Your task to perform on an android device: turn off data saver in the chrome app Image 0: 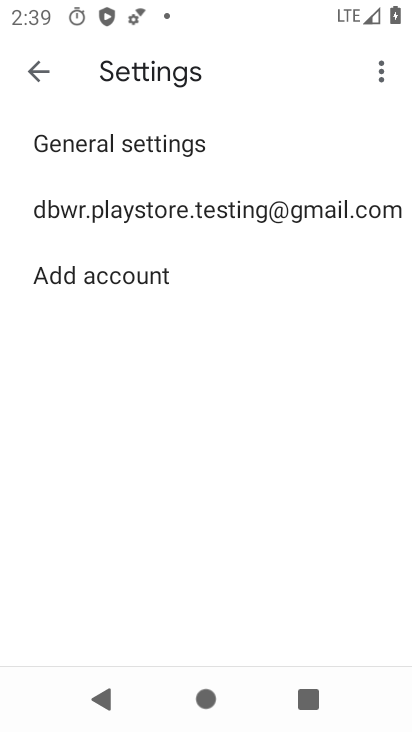
Step 0: press home button
Your task to perform on an android device: turn off data saver in the chrome app Image 1: 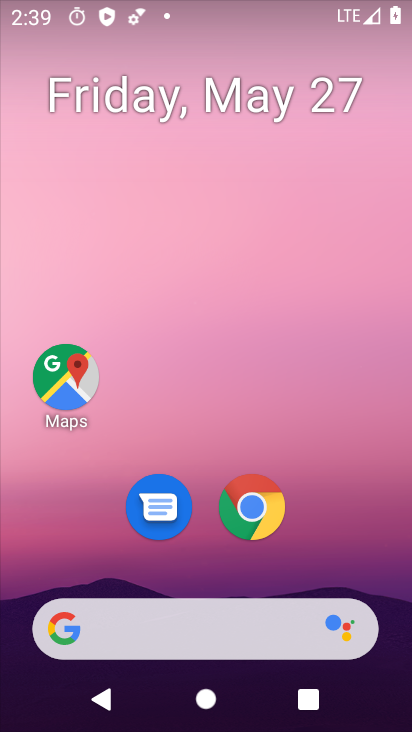
Step 1: click (254, 508)
Your task to perform on an android device: turn off data saver in the chrome app Image 2: 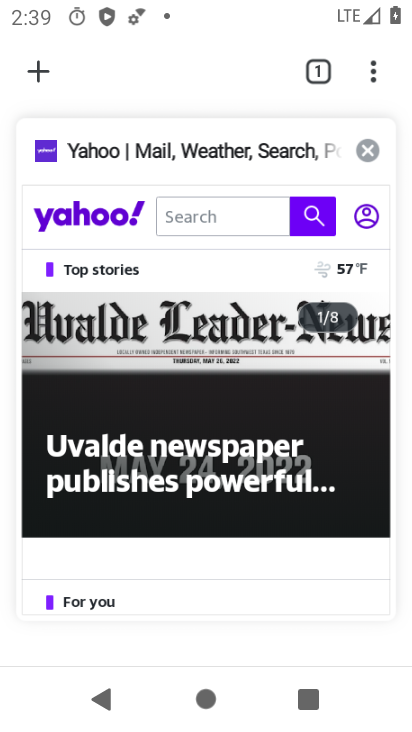
Step 2: click (365, 69)
Your task to perform on an android device: turn off data saver in the chrome app Image 3: 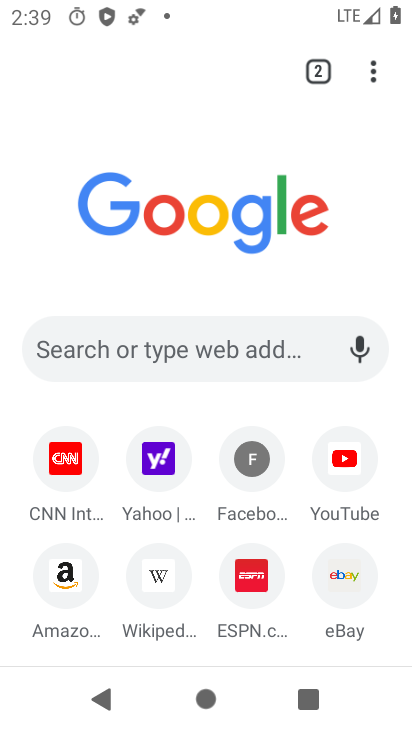
Step 3: click (375, 76)
Your task to perform on an android device: turn off data saver in the chrome app Image 4: 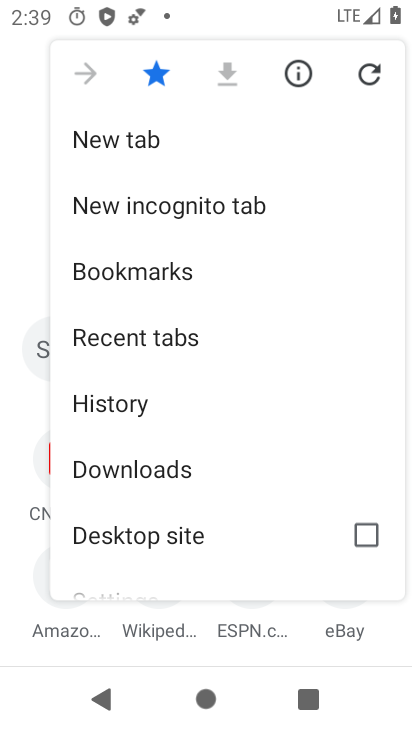
Step 4: drag from (133, 544) to (170, 145)
Your task to perform on an android device: turn off data saver in the chrome app Image 5: 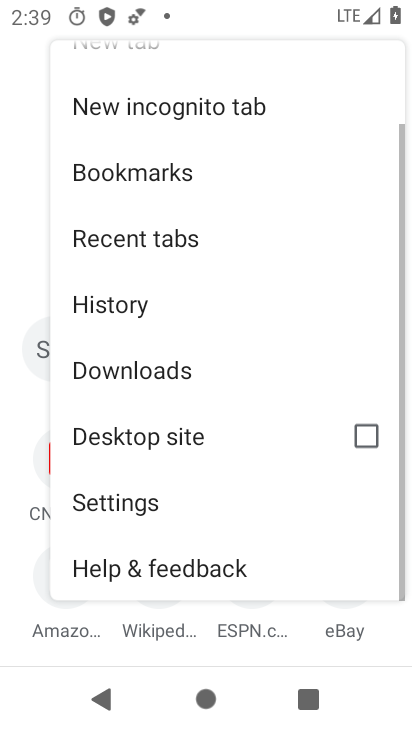
Step 5: click (124, 511)
Your task to perform on an android device: turn off data saver in the chrome app Image 6: 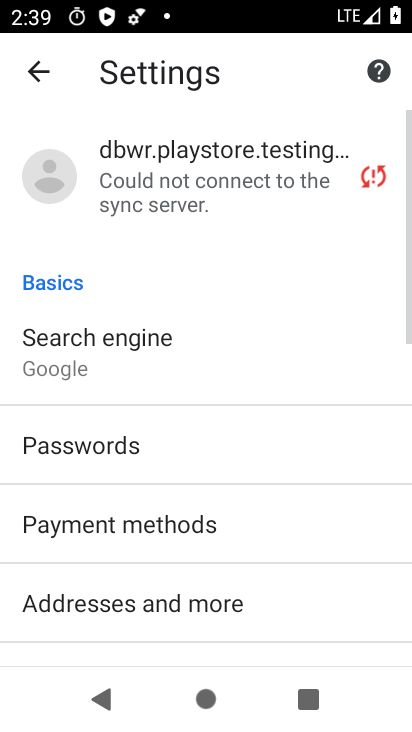
Step 6: drag from (128, 547) to (128, 280)
Your task to perform on an android device: turn off data saver in the chrome app Image 7: 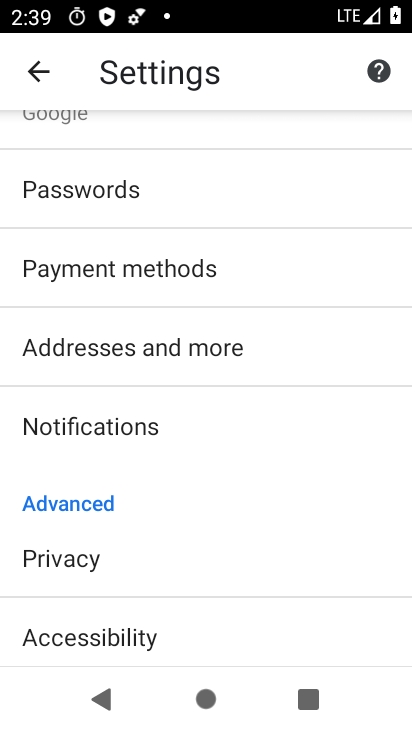
Step 7: drag from (78, 628) to (76, 301)
Your task to perform on an android device: turn off data saver in the chrome app Image 8: 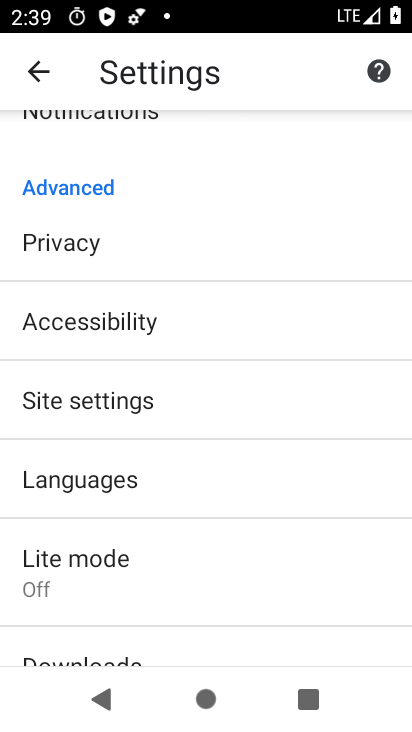
Step 8: click (73, 576)
Your task to perform on an android device: turn off data saver in the chrome app Image 9: 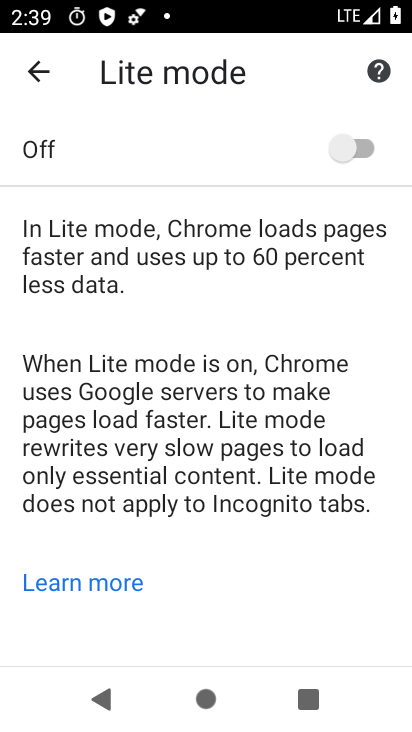
Step 9: task complete